Your task to perform on an android device: Go to wifi settings Image 0: 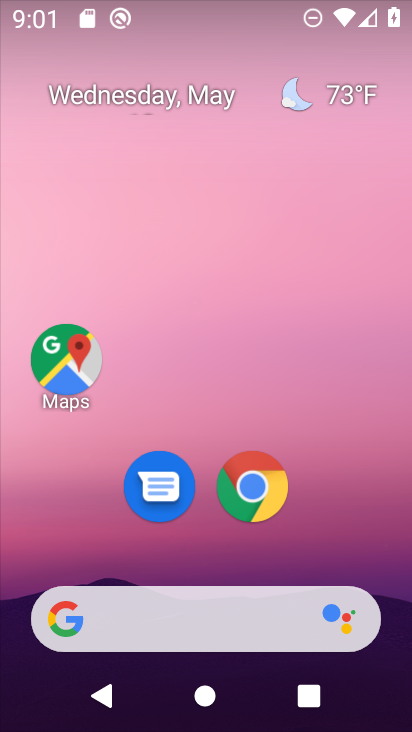
Step 0: drag from (394, 629) to (324, 228)
Your task to perform on an android device: Go to wifi settings Image 1: 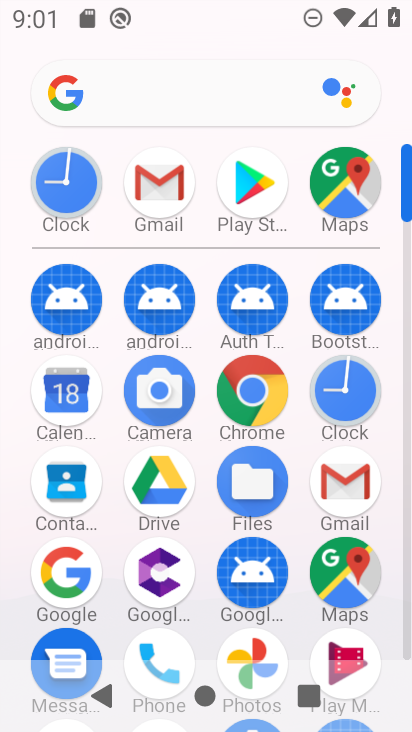
Step 1: click (406, 637)
Your task to perform on an android device: Go to wifi settings Image 2: 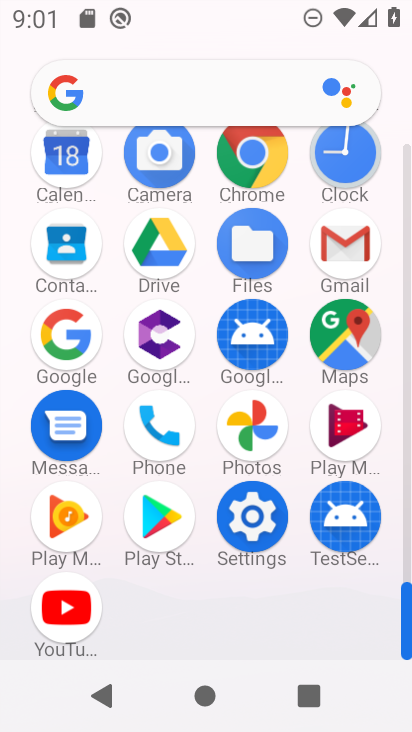
Step 2: click (254, 518)
Your task to perform on an android device: Go to wifi settings Image 3: 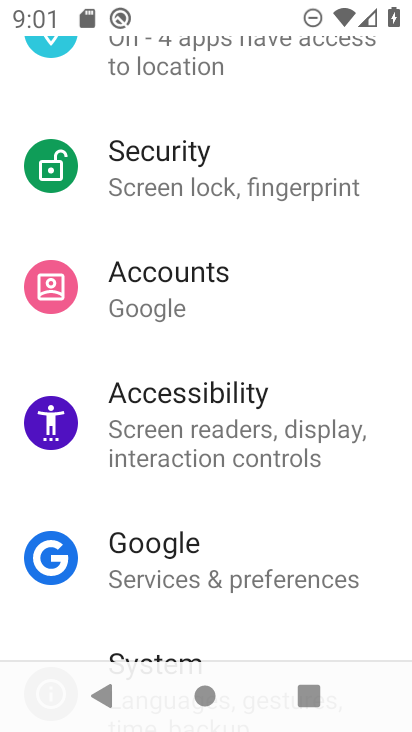
Step 3: drag from (353, 134) to (331, 464)
Your task to perform on an android device: Go to wifi settings Image 4: 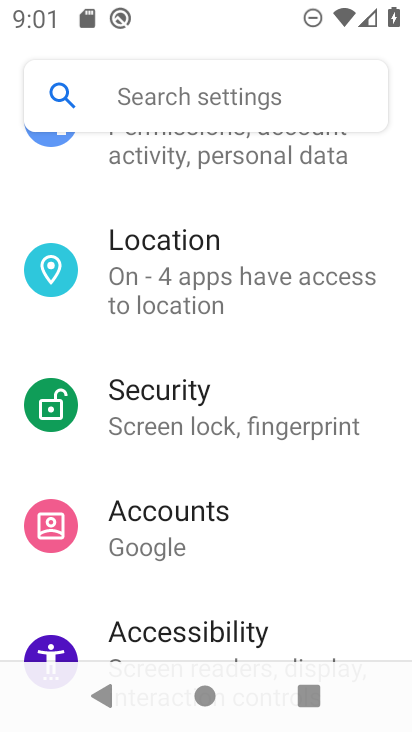
Step 4: drag from (310, 214) to (333, 544)
Your task to perform on an android device: Go to wifi settings Image 5: 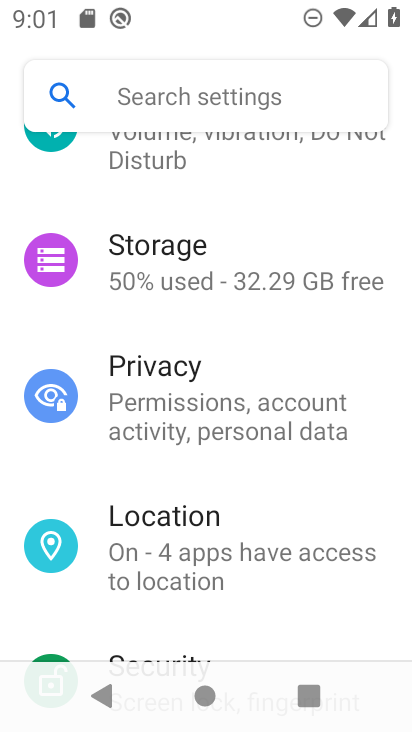
Step 5: drag from (329, 245) to (353, 569)
Your task to perform on an android device: Go to wifi settings Image 6: 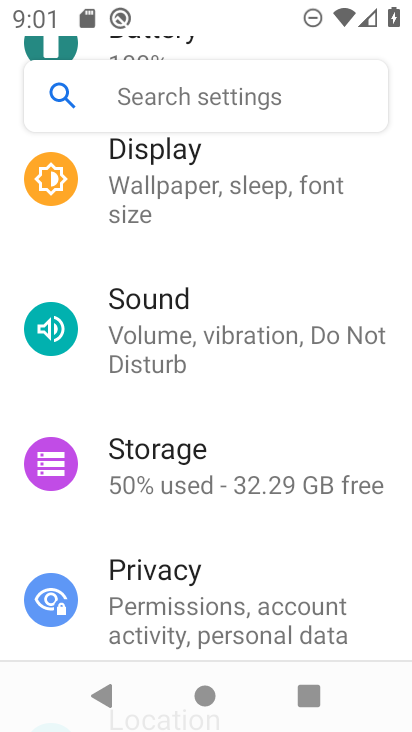
Step 6: drag from (329, 223) to (356, 480)
Your task to perform on an android device: Go to wifi settings Image 7: 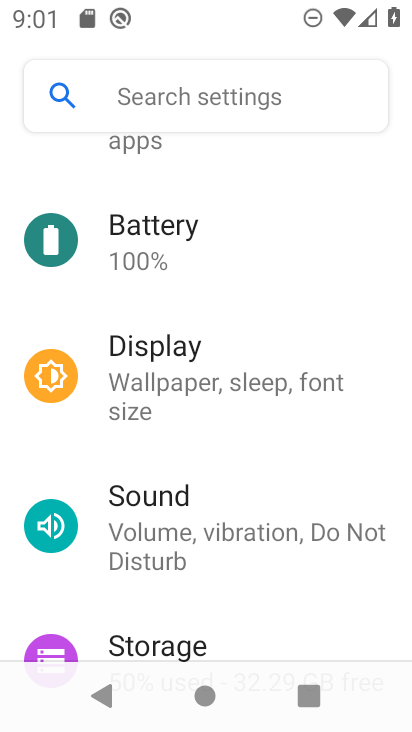
Step 7: drag from (355, 195) to (337, 523)
Your task to perform on an android device: Go to wifi settings Image 8: 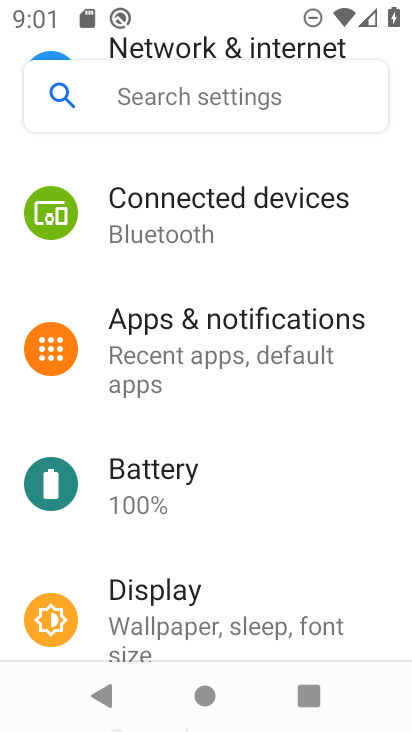
Step 8: drag from (388, 183) to (391, 499)
Your task to perform on an android device: Go to wifi settings Image 9: 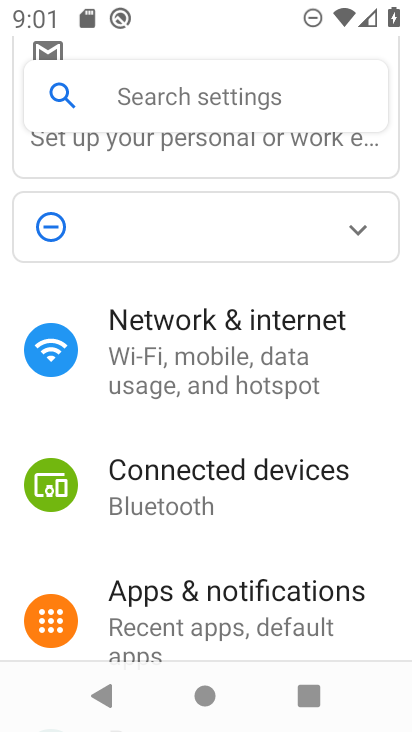
Step 9: click (184, 356)
Your task to perform on an android device: Go to wifi settings Image 10: 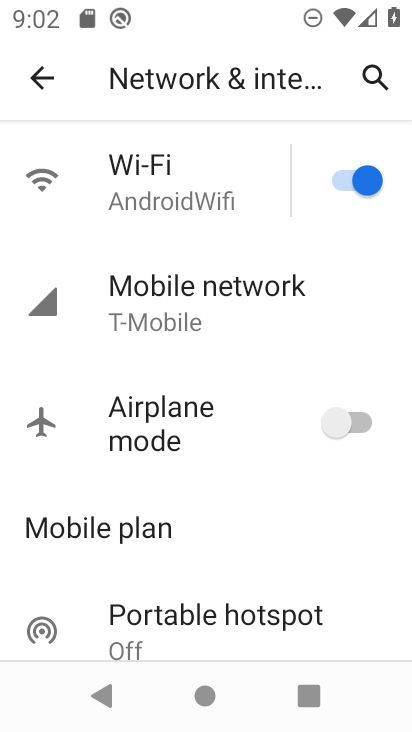
Step 10: click (130, 166)
Your task to perform on an android device: Go to wifi settings Image 11: 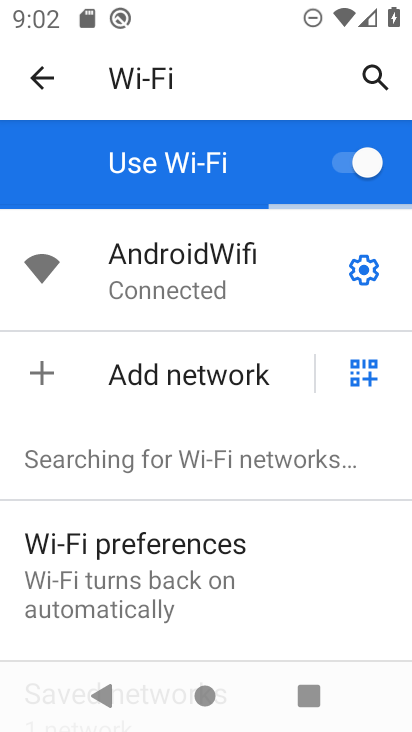
Step 11: task complete